Your task to perform on an android device: open a new tab in the chrome app Image 0: 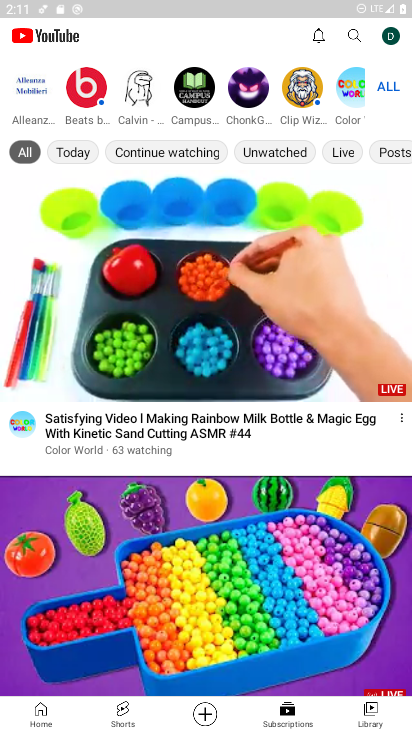
Step 0: press home button
Your task to perform on an android device: open a new tab in the chrome app Image 1: 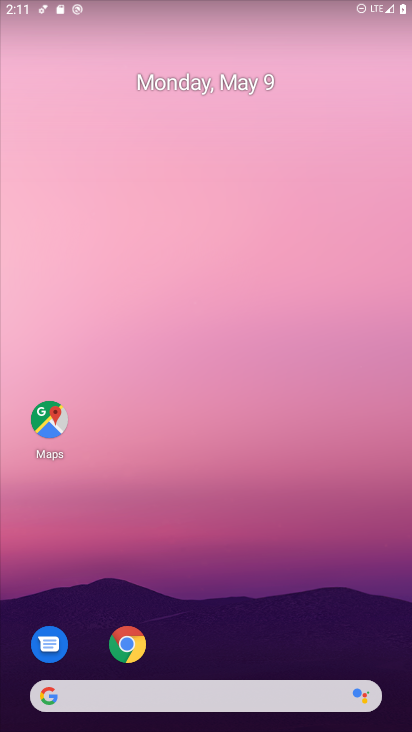
Step 1: click (139, 661)
Your task to perform on an android device: open a new tab in the chrome app Image 2: 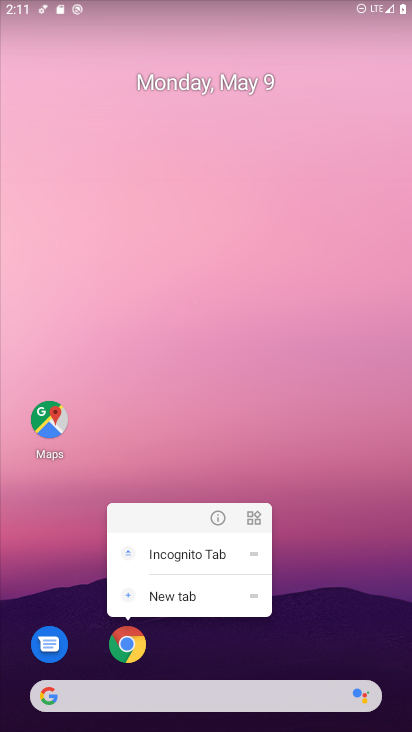
Step 2: click (144, 600)
Your task to perform on an android device: open a new tab in the chrome app Image 3: 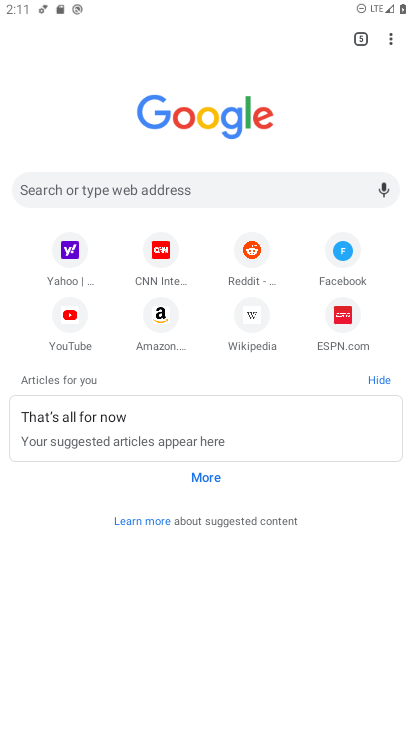
Step 3: click (186, 598)
Your task to perform on an android device: open a new tab in the chrome app Image 4: 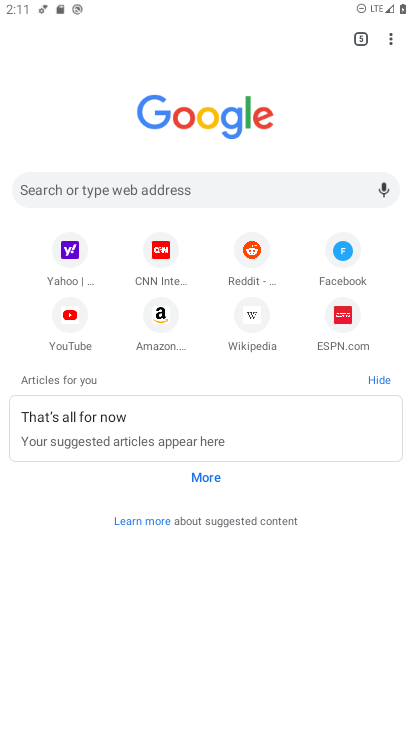
Step 4: task complete